Your task to perform on an android device: Open Chrome and go to settings Image 0: 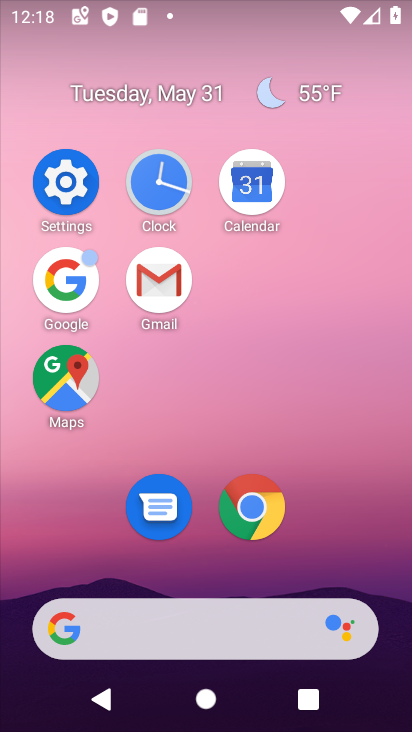
Step 0: click (254, 522)
Your task to perform on an android device: Open Chrome and go to settings Image 1: 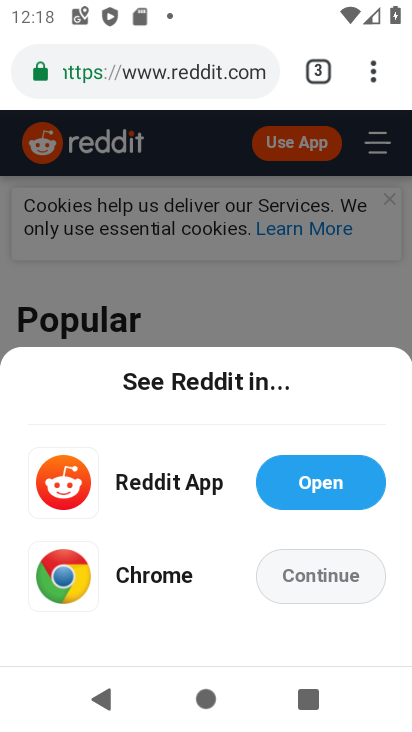
Step 1: click (374, 69)
Your task to perform on an android device: Open Chrome and go to settings Image 2: 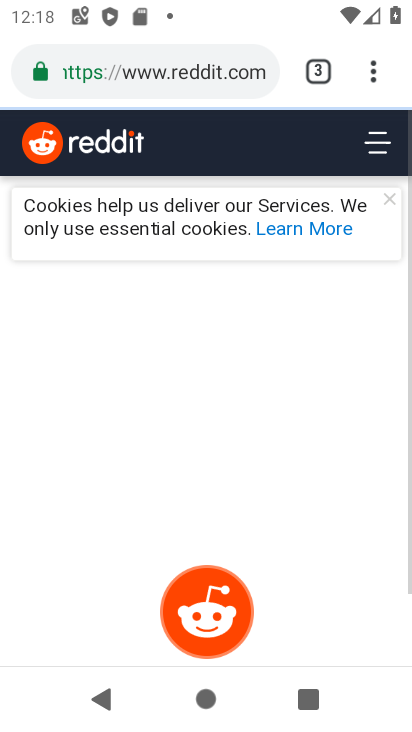
Step 2: click (381, 88)
Your task to perform on an android device: Open Chrome and go to settings Image 3: 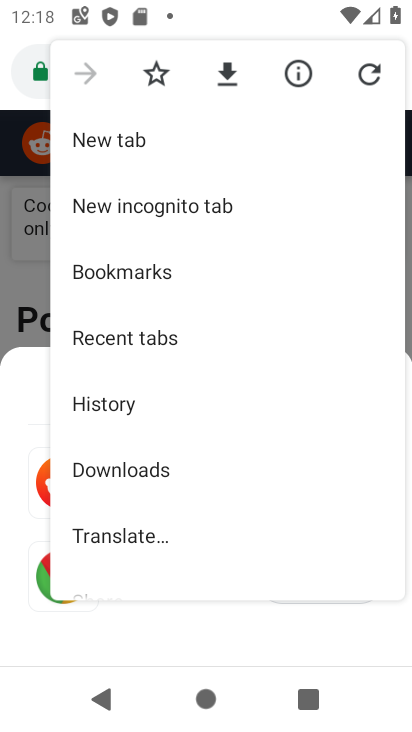
Step 3: drag from (227, 490) to (227, 167)
Your task to perform on an android device: Open Chrome and go to settings Image 4: 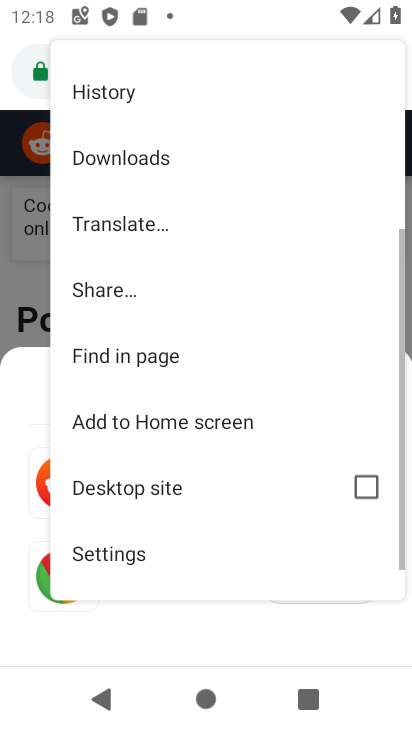
Step 4: click (110, 553)
Your task to perform on an android device: Open Chrome and go to settings Image 5: 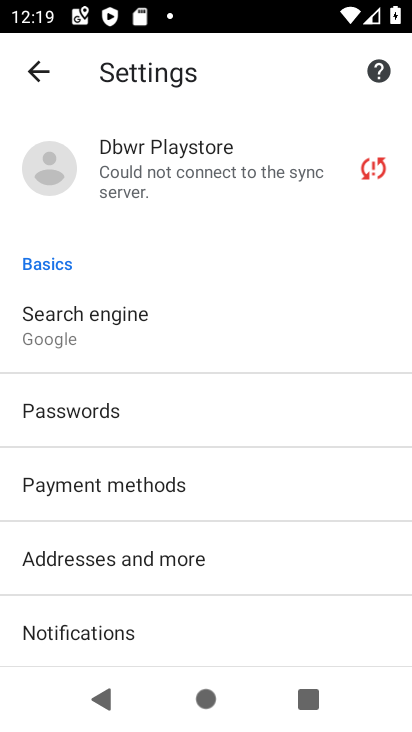
Step 5: task complete